Your task to perform on an android device: find photos in the google photos app Image 0: 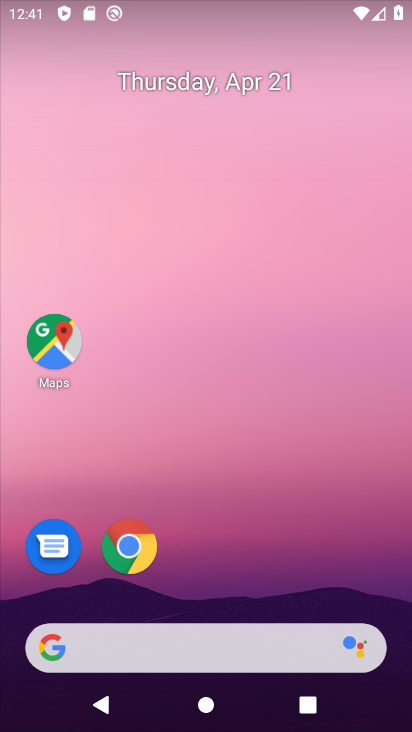
Step 0: drag from (174, 654) to (288, 205)
Your task to perform on an android device: find photos in the google photos app Image 1: 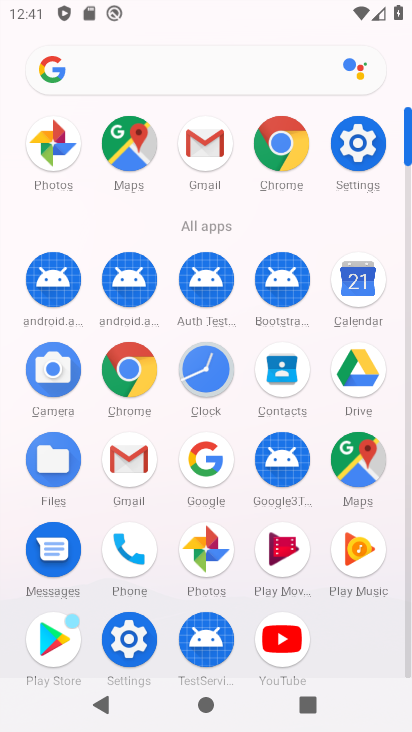
Step 1: click (197, 550)
Your task to perform on an android device: find photos in the google photos app Image 2: 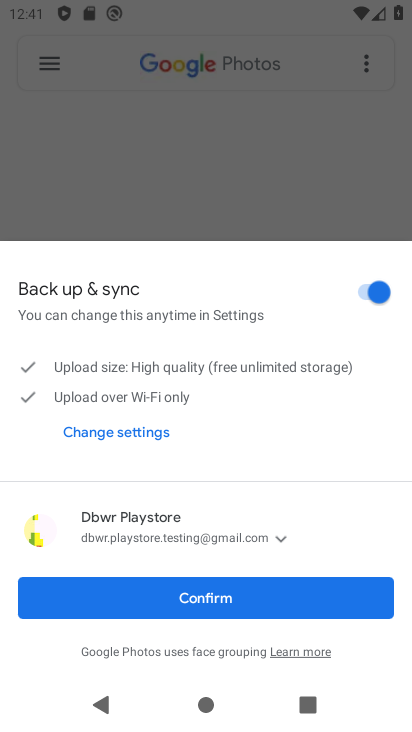
Step 2: click (174, 594)
Your task to perform on an android device: find photos in the google photos app Image 3: 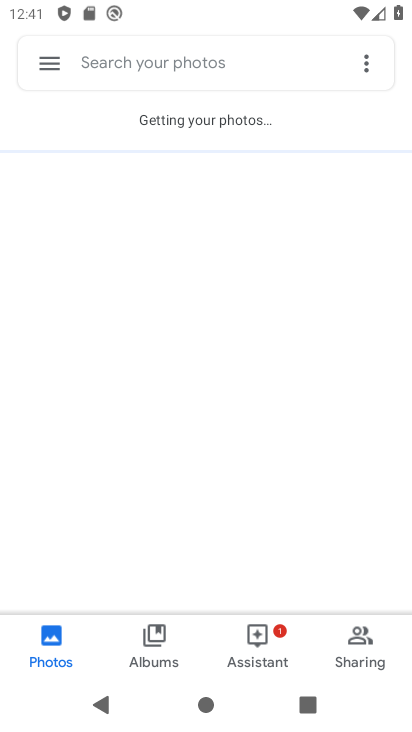
Step 3: click (49, 651)
Your task to perform on an android device: find photos in the google photos app Image 4: 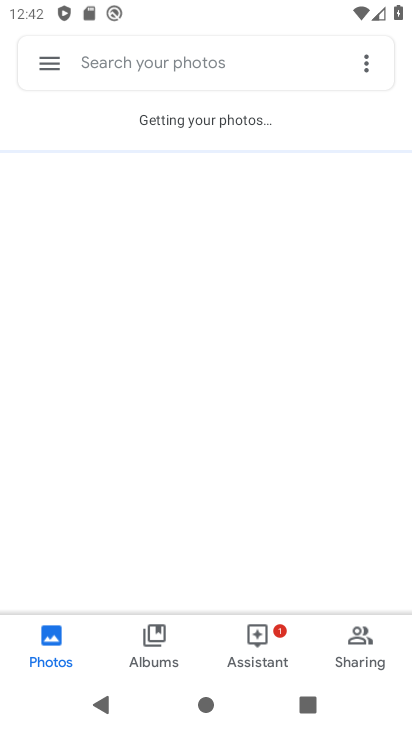
Step 4: click (54, 645)
Your task to perform on an android device: find photos in the google photos app Image 5: 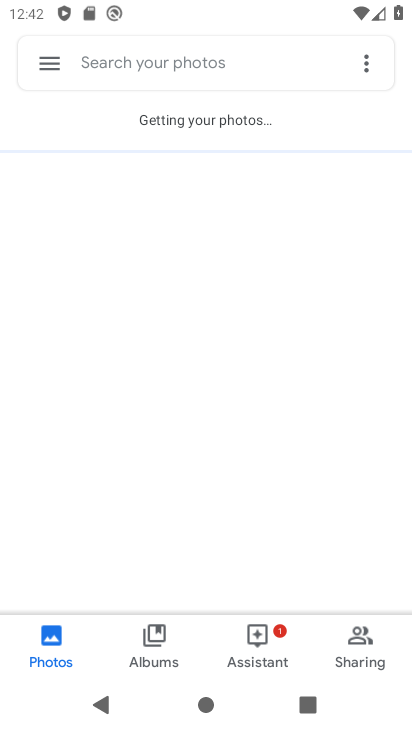
Step 5: task complete